Your task to perform on an android device: Open Reddit.com Image 0: 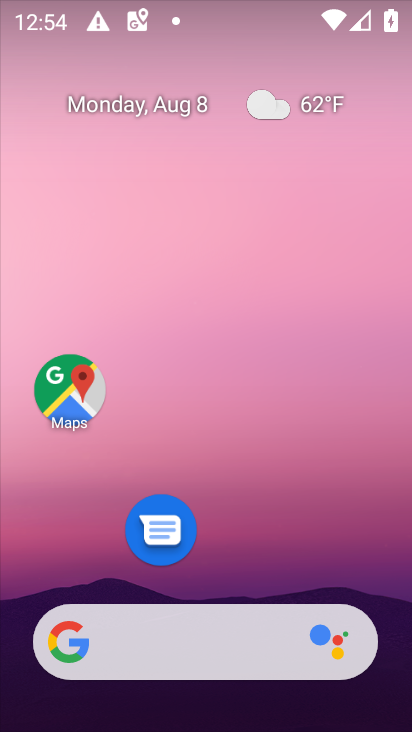
Step 0: drag from (231, 524) to (241, 129)
Your task to perform on an android device: Open Reddit.com Image 1: 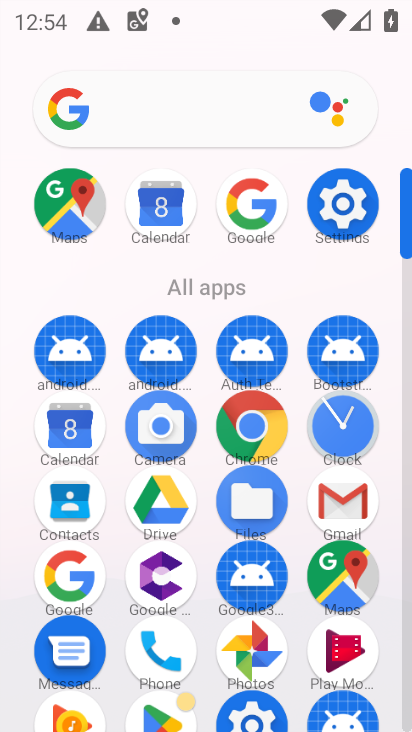
Step 1: click (253, 431)
Your task to perform on an android device: Open Reddit.com Image 2: 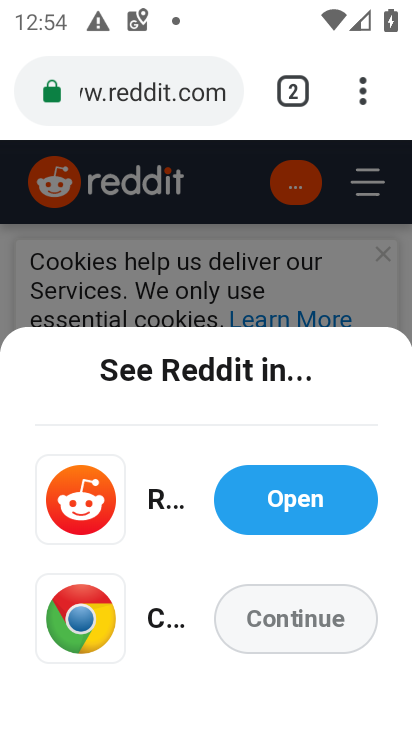
Step 2: task complete